Your task to perform on an android device: Open calendar and show me the fourth week of next month Image 0: 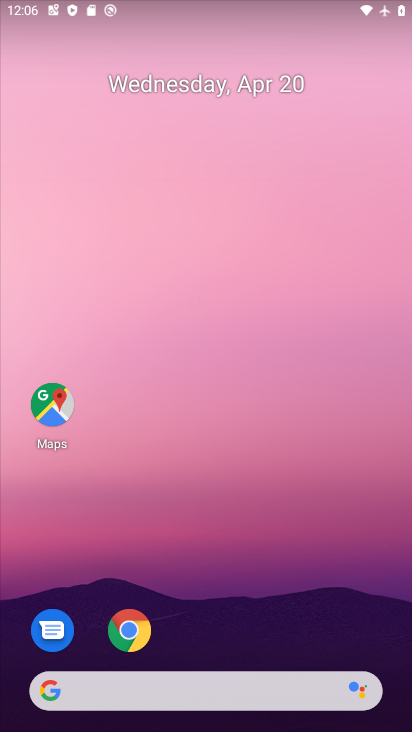
Step 0: drag from (148, 645) to (319, 230)
Your task to perform on an android device: Open calendar and show me the fourth week of next month Image 1: 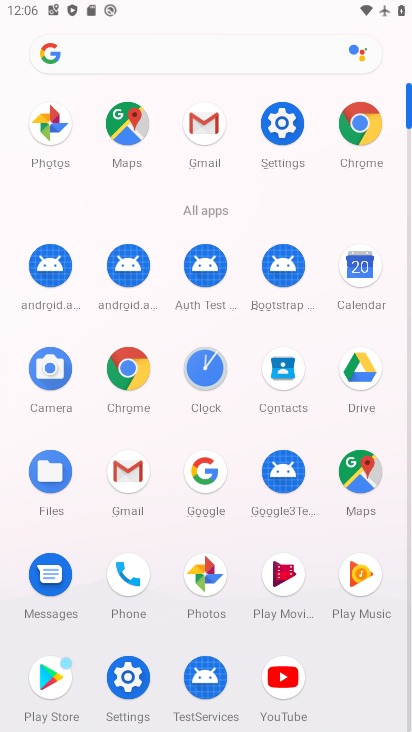
Step 1: click (359, 270)
Your task to perform on an android device: Open calendar and show me the fourth week of next month Image 2: 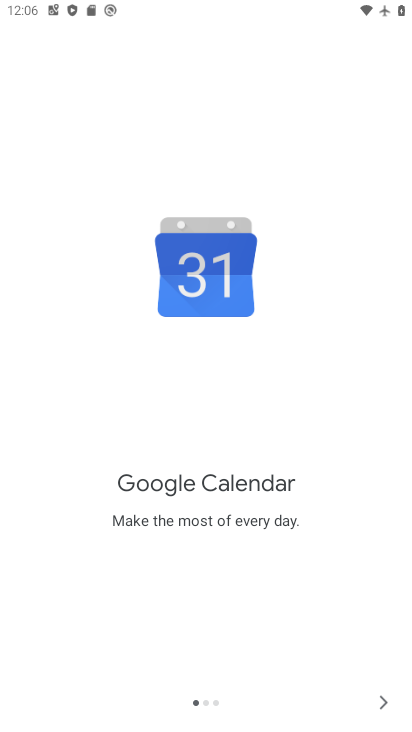
Step 2: click (384, 700)
Your task to perform on an android device: Open calendar and show me the fourth week of next month Image 3: 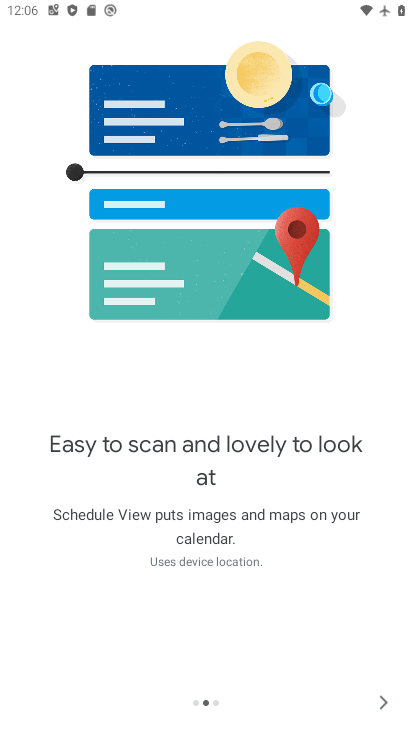
Step 3: click (384, 700)
Your task to perform on an android device: Open calendar and show me the fourth week of next month Image 4: 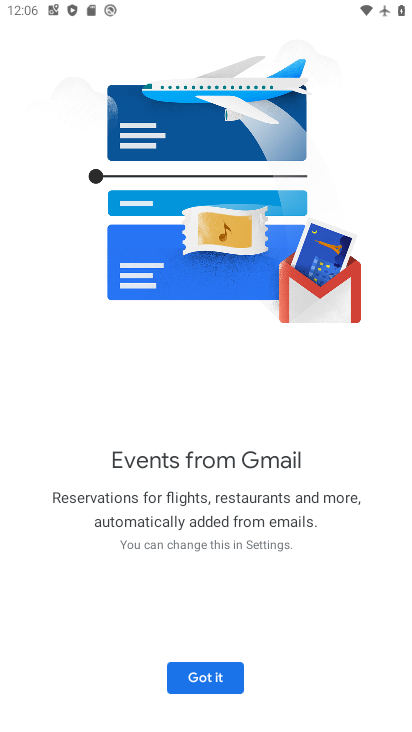
Step 4: click (208, 681)
Your task to perform on an android device: Open calendar and show me the fourth week of next month Image 5: 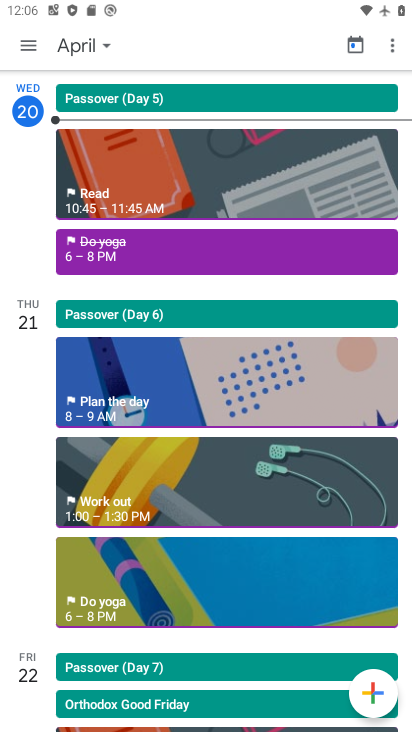
Step 5: click (75, 43)
Your task to perform on an android device: Open calendar and show me the fourth week of next month Image 6: 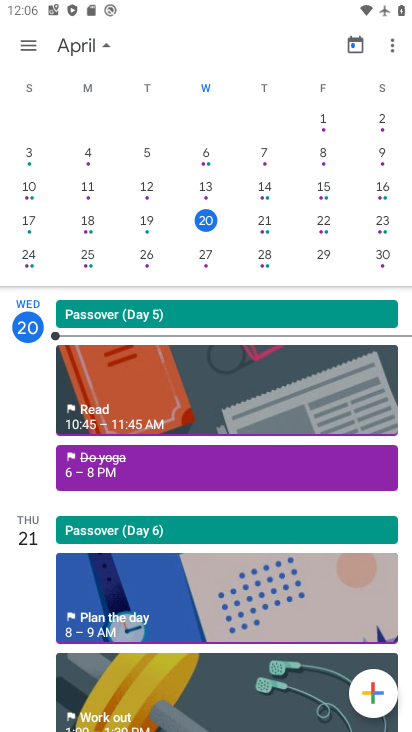
Step 6: drag from (290, 196) to (0, 170)
Your task to perform on an android device: Open calendar and show me the fourth week of next month Image 7: 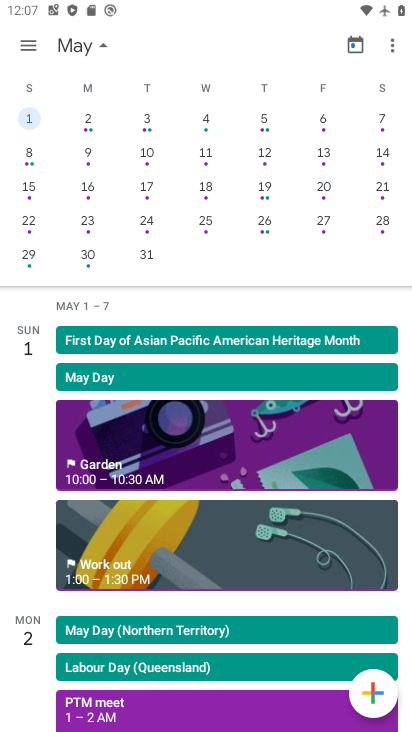
Step 7: click (29, 219)
Your task to perform on an android device: Open calendar and show me the fourth week of next month Image 8: 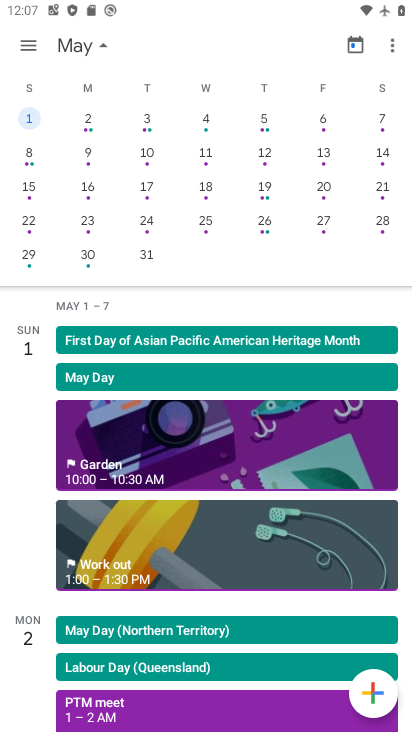
Step 8: click (27, 223)
Your task to perform on an android device: Open calendar and show me the fourth week of next month Image 9: 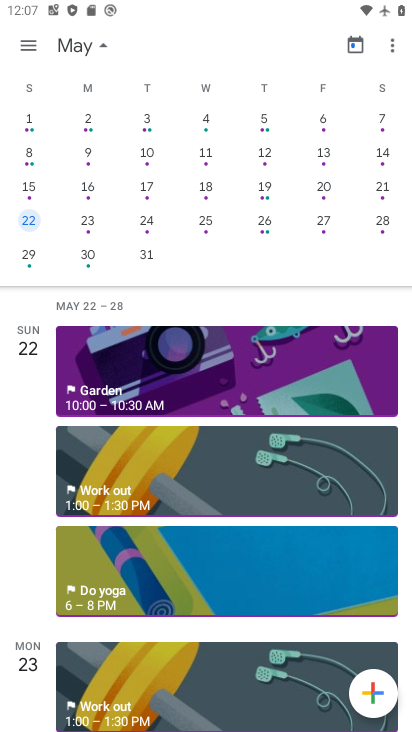
Step 9: click (26, 44)
Your task to perform on an android device: Open calendar and show me the fourth week of next month Image 10: 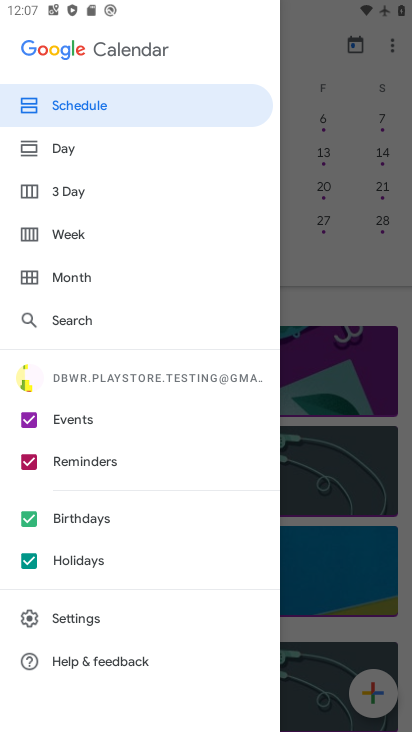
Step 10: click (75, 230)
Your task to perform on an android device: Open calendar and show me the fourth week of next month Image 11: 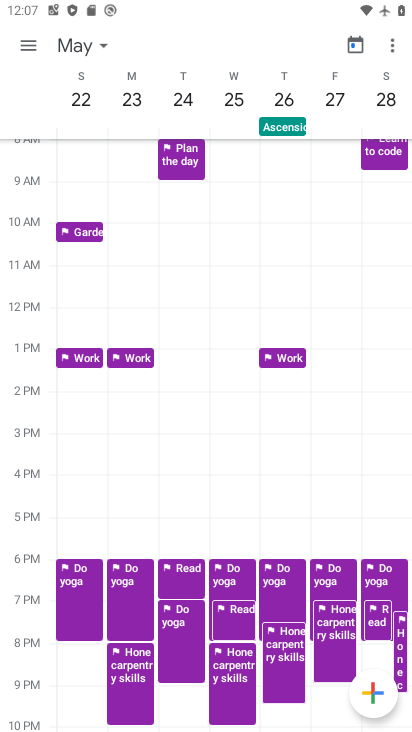
Step 11: task complete